Your task to perform on an android device: turn pop-ups off in chrome Image 0: 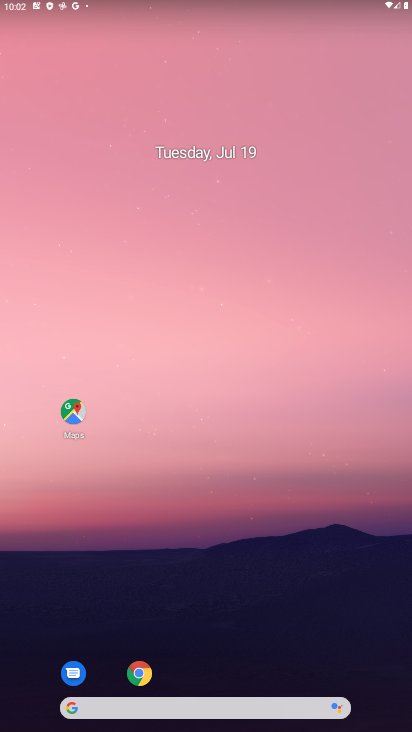
Step 0: click (153, 665)
Your task to perform on an android device: turn pop-ups off in chrome Image 1: 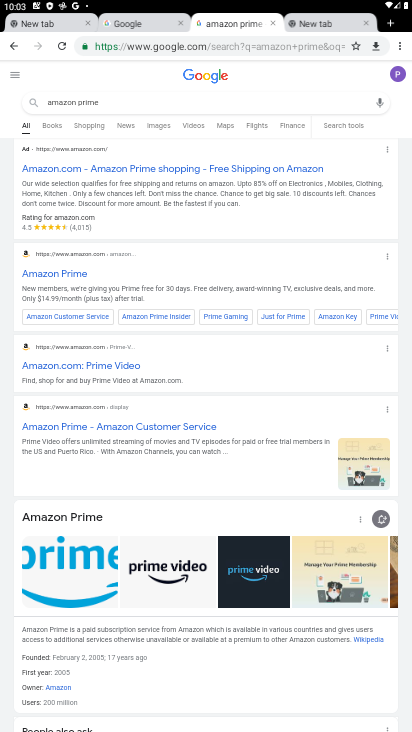
Step 1: click (398, 49)
Your task to perform on an android device: turn pop-ups off in chrome Image 2: 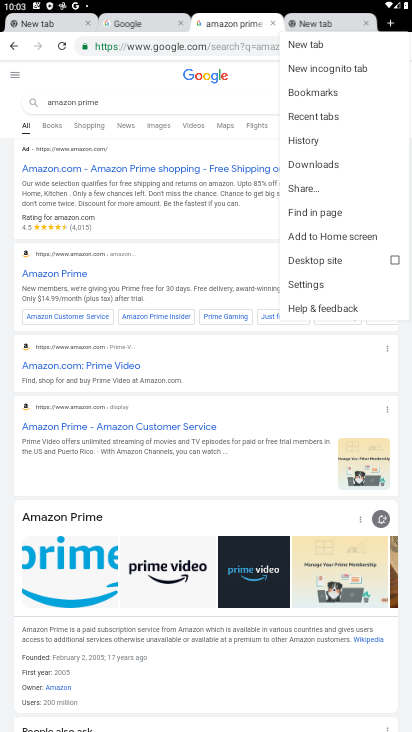
Step 2: click (335, 286)
Your task to perform on an android device: turn pop-ups off in chrome Image 3: 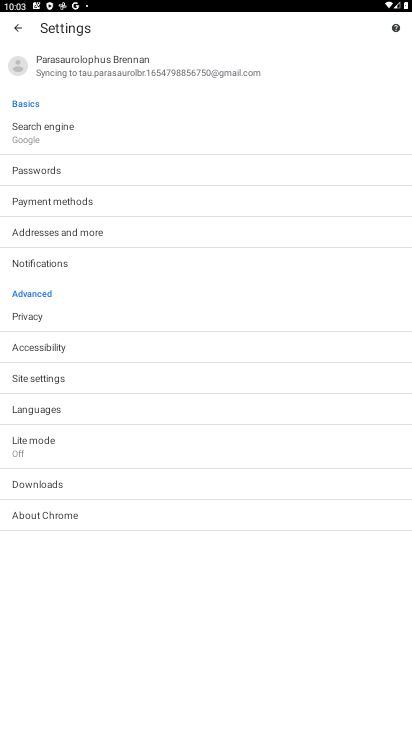
Step 3: click (142, 385)
Your task to perform on an android device: turn pop-ups off in chrome Image 4: 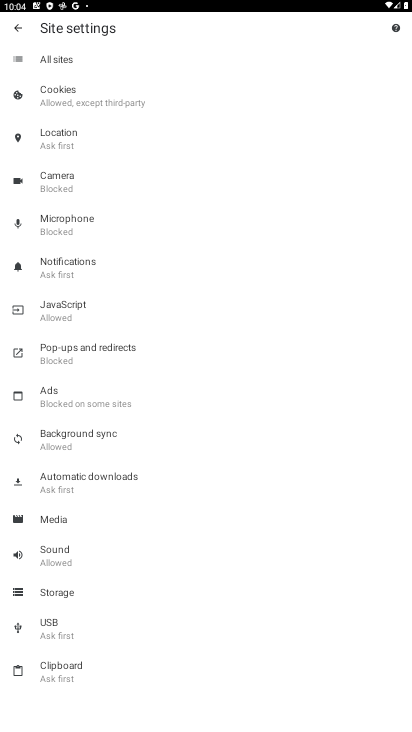
Step 4: task complete